Your task to perform on an android device: open sync settings in chrome Image 0: 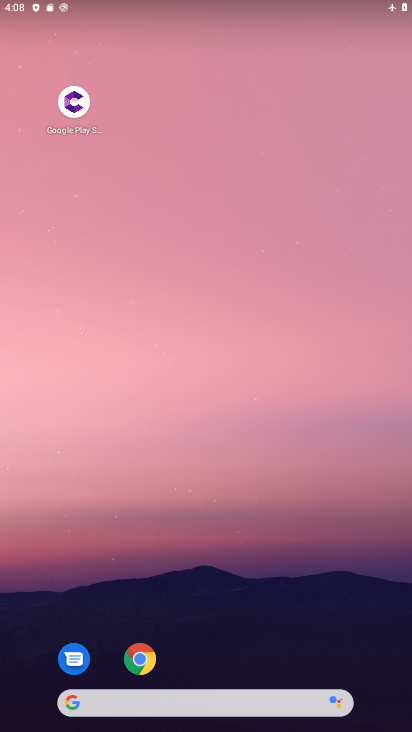
Step 0: drag from (355, 632) to (377, 89)
Your task to perform on an android device: open sync settings in chrome Image 1: 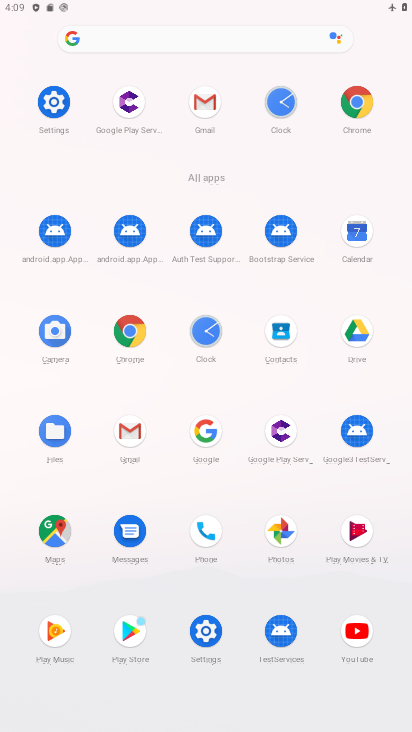
Step 1: click (121, 332)
Your task to perform on an android device: open sync settings in chrome Image 2: 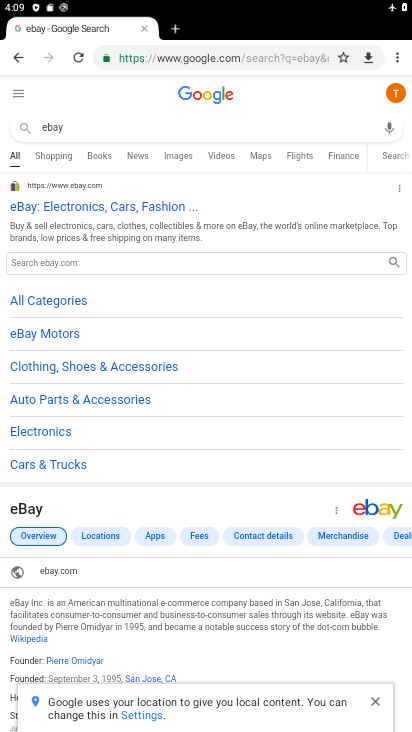
Step 2: click (398, 59)
Your task to perform on an android device: open sync settings in chrome Image 3: 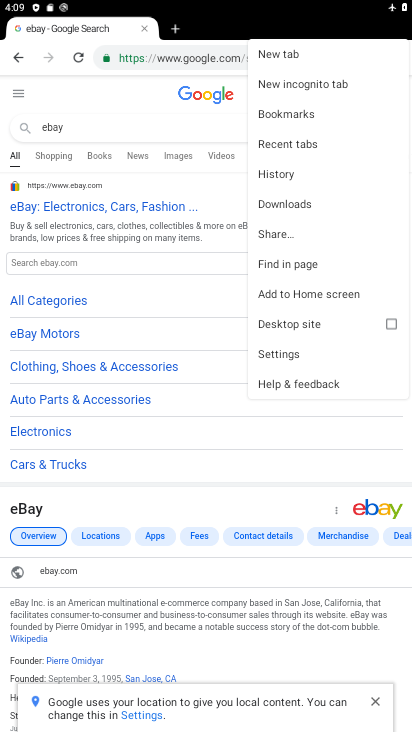
Step 3: click (297, 352)
Your task to perform on an android device: open sync settings in chrome Image 4: 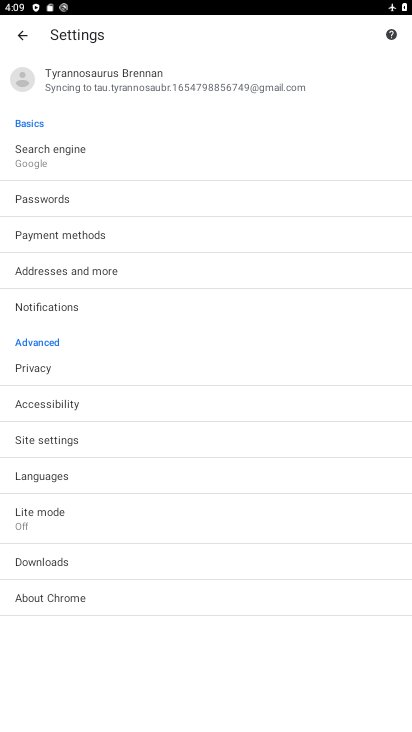
Step 4: click (178, 435)
Your task to perform on an android device: open sync settings in chrome Image 5: 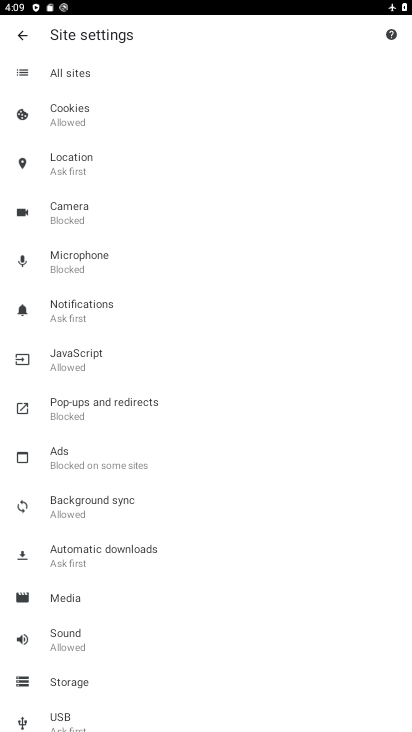
Step 5: click (151, 509)
Your task to perform on an android device: open sync settings in chrome Image 6: 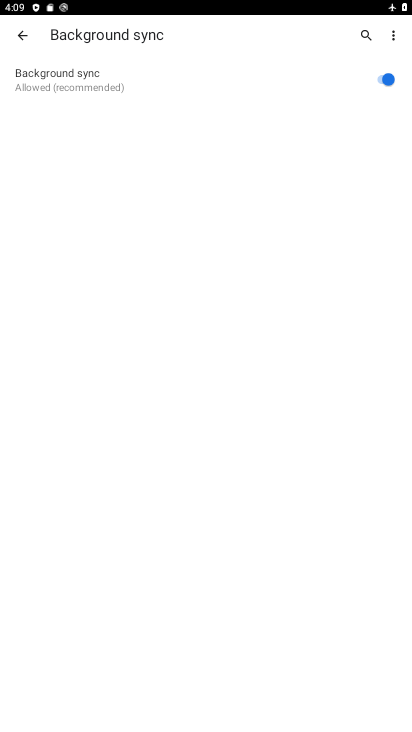
Step 6: task complete